Your task to perform on an android device: move an email to a new category in the gmail app Image 0: 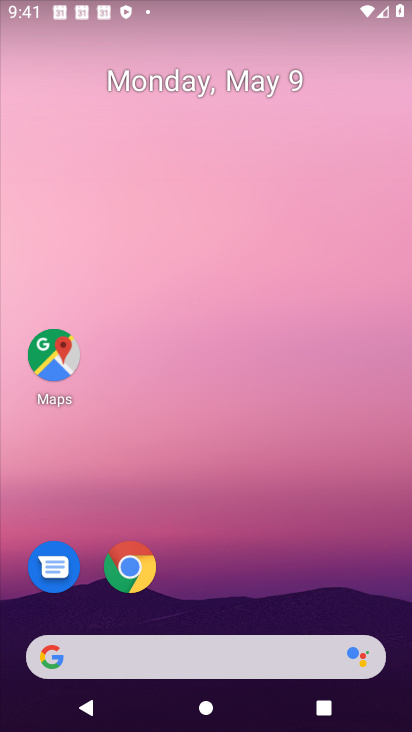
Step 0: drag from (179, 524) to (134, 84)
Your task to perform on an android device: move an email to a new category in the gmail app Image 1: 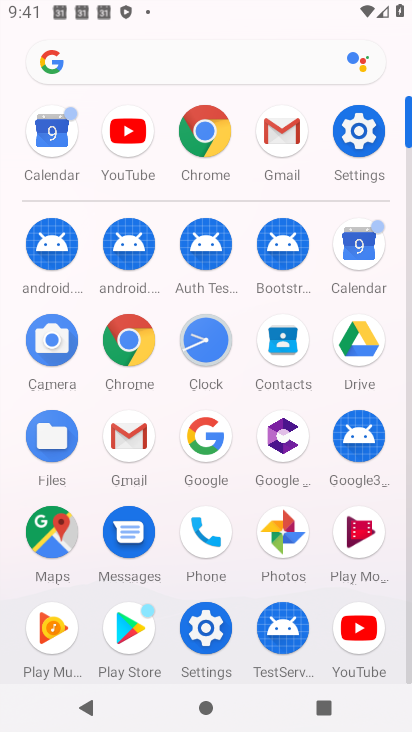
Step 1: click (128, 427)
Your task to perform on an android device: move an email to a new category in the gmail app Image 2: 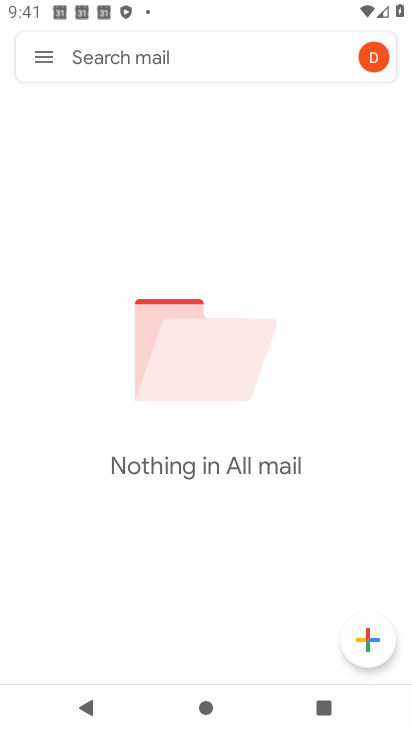
Step 2: click (51, 39)
Your task to perform on an android device: move an email to a new category in the gmail app Image 3: 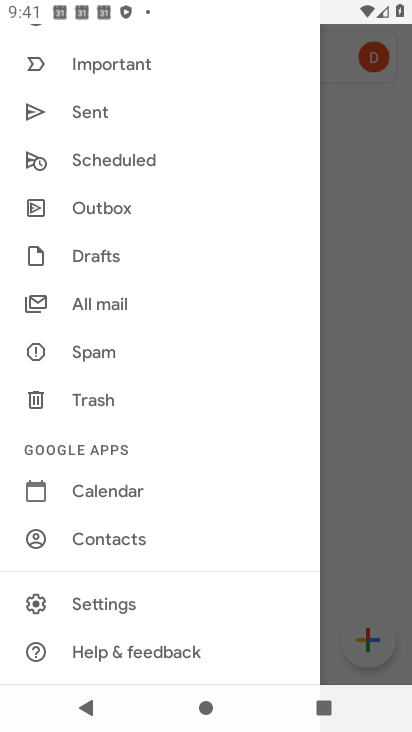
Step 3: click (94, 314)
Your task to perform on an android device: move an email to a new category in the gmail app Image 4: 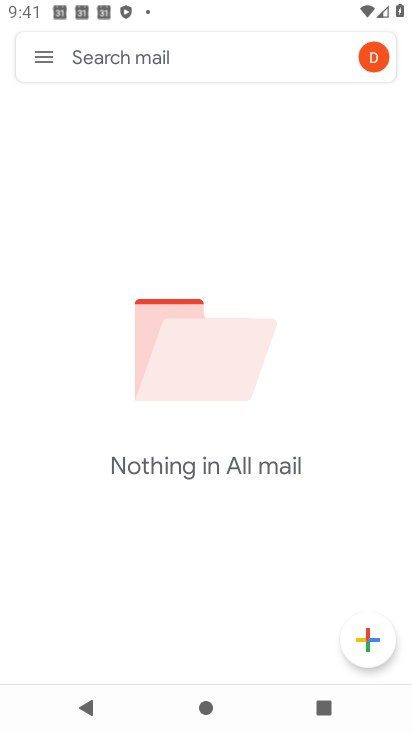
Step 4: task complete